Your task to perform on an android device: toggle show notifications on the lock screen Image 0: 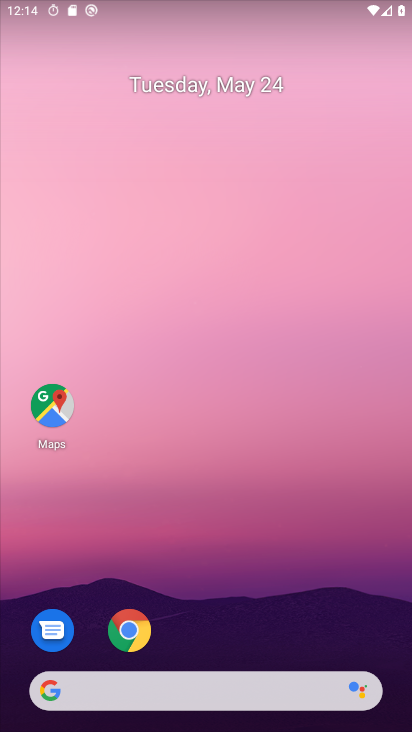
Step 0: drag from (242, 633) to (294, 61)
Your task to perform on an android device: toggle show notifications on the lock screen Image 1: 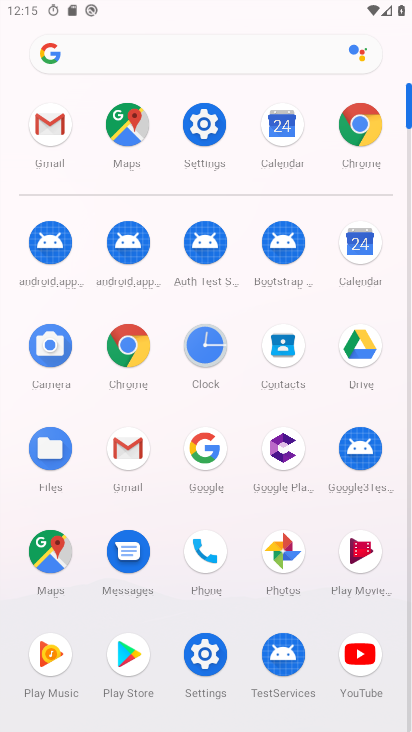
Step 1: click (208, 131)
Your task to perform on an android device: toggle show notifications on the lock screen Image 2: 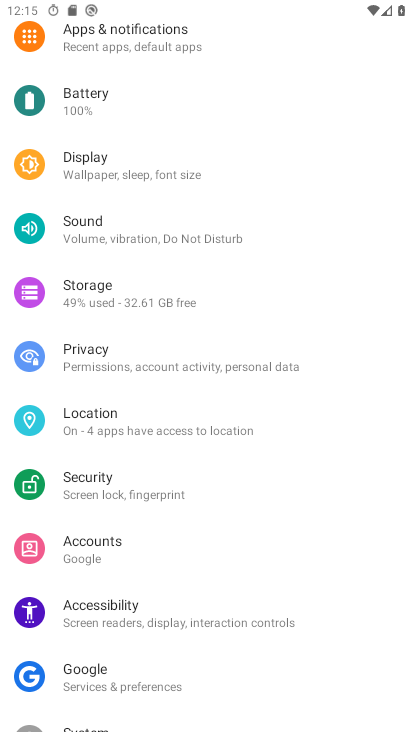
Step 2: click (159, 36)
Your task to perform on an android device: toggle show notifications on the lock screen Image 3: 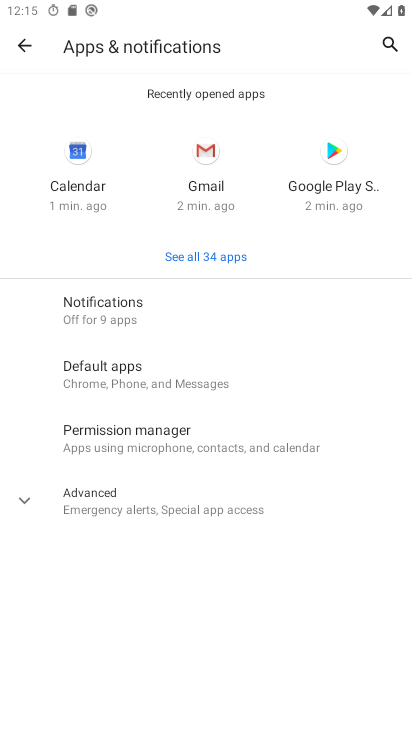
Step 3: click (137, 321)
Your task to perform on an android device: toggle show notifications on the lock screen Image 4: 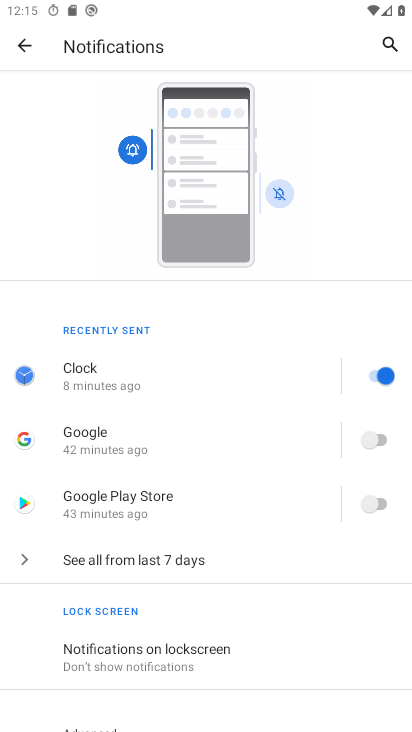
Step 4: drag from (237, 629) to (244, 276)
Your task to perform on an android device: toggle show notifications on the lock screen Image 5: 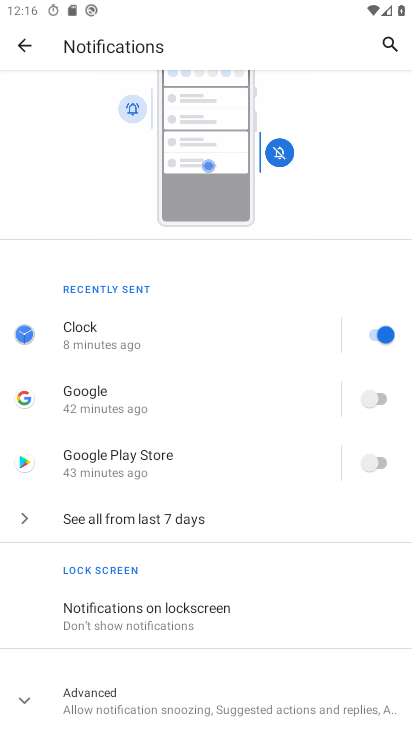
Step 5: drag from (198, 587) to (208, 323)
Your task to perform on an android device: toggle show notifications on the lock screen Image 6: 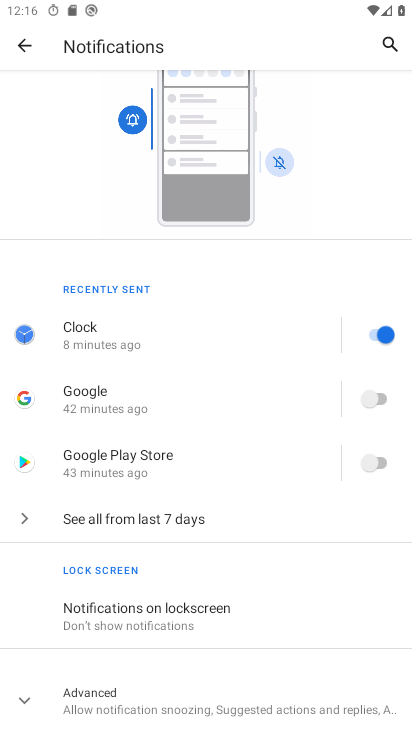
Step 6: click (191, 617)
Your task to perform on an android device: toggle show notifications on the lock screen Image 7: 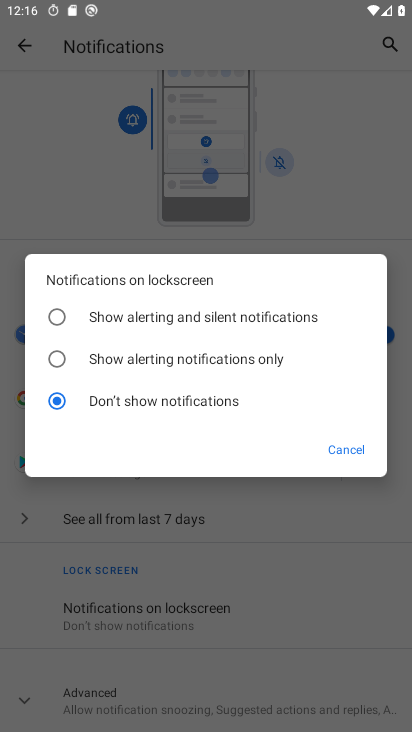
Step 7: click (185, 315)
Your task to perform on an android device: toggle show notifications on the lock screen Image 8: 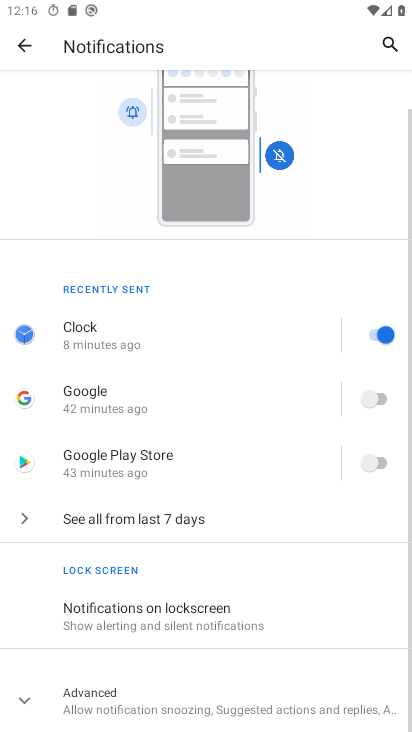
Step 8: task complete